Your task to perform on an android device: turn on javascript in the chrome app Image 0: 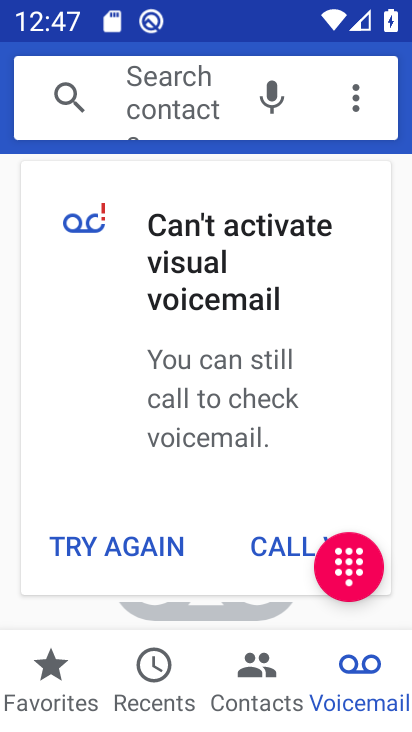
Step 0: press home button
Your task to perform on an android device: turn on javascript in the chrome app Image 1: 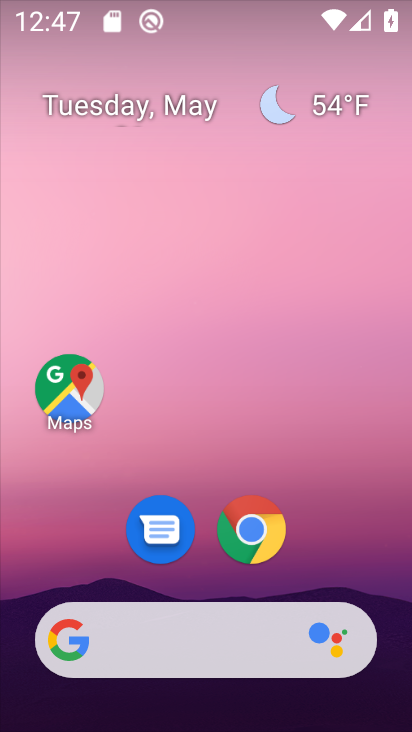
Step 1: drag from (324, 500) to (312, 227)
Your task to perform on an android device: turn on javascript in the chrome app Image 2: 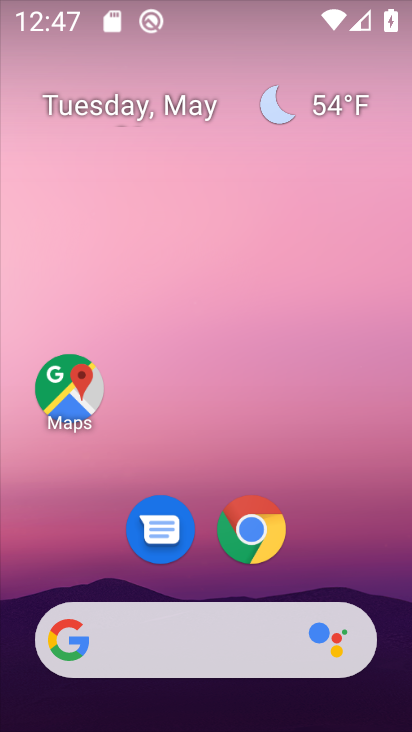
Step 2: drag from (318, 581) to (324, 226)
Your task to perform on an android device: turn on javascript in the chrome app Image 3: 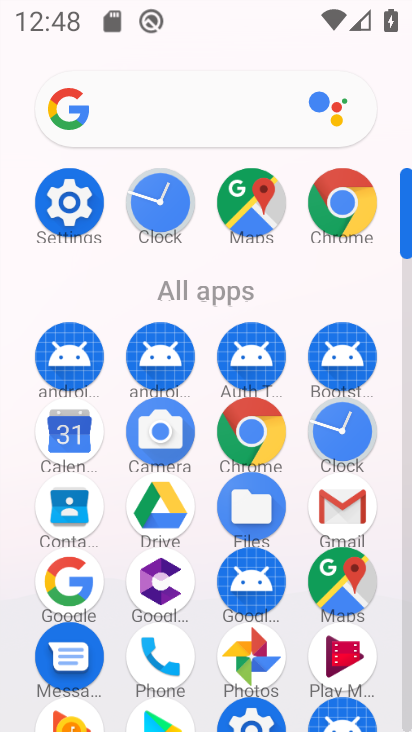
Step 3: click (255, 425)
Your task to perform on an android device: turn on javascript in the chrome app Image 4: 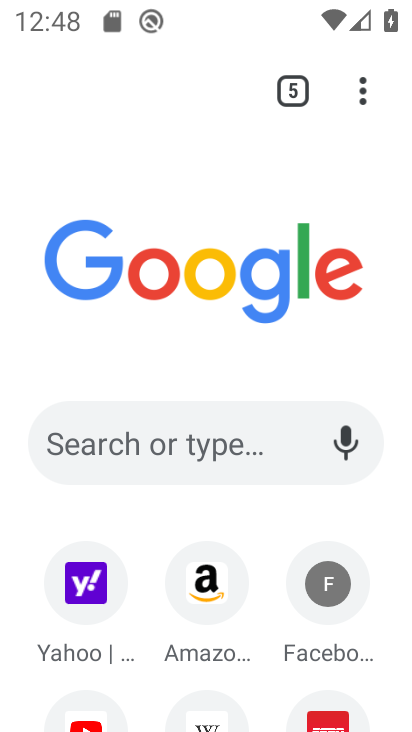
Step 4: click (356, 100)
Your task to perform on an android device: turn on javascript in the chrome app Image 5: 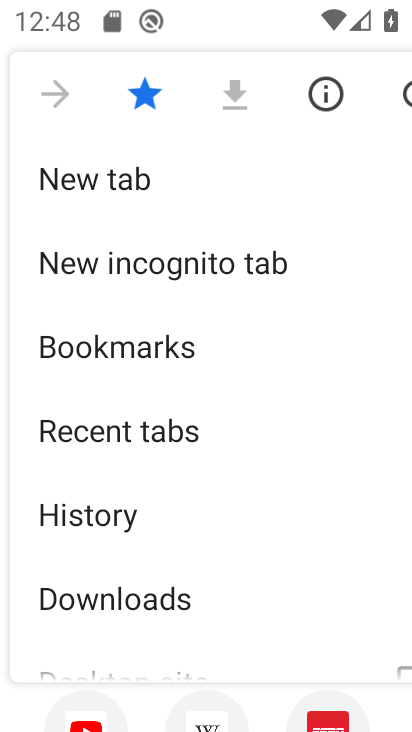
Step 5: drag from (176, 527) to (233, 314)
Your task to perform on an android device: turn on javascript in the chrome app Image 6: 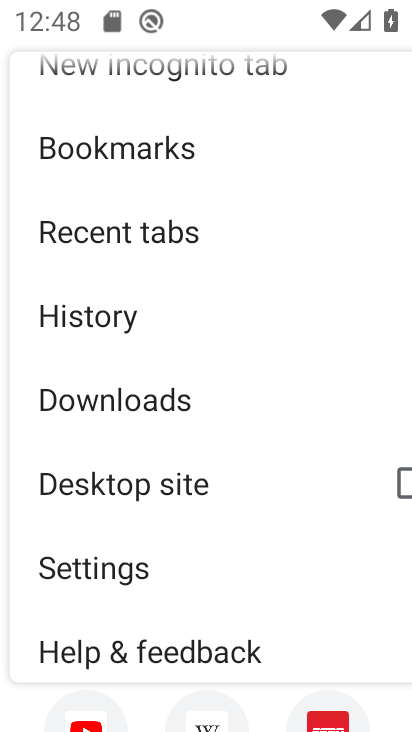
Step 6: click (138, 578)
Your task to perform on an android device: turn on javascript in the chrome app Image 7: 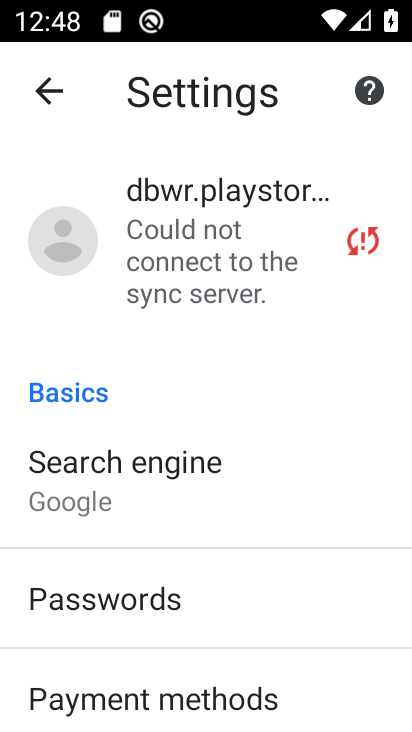
Step 7: drag from (283, 597) to (275, 190)
Your task to perform on an android device: turn on javascript in the chrome app Image 8: 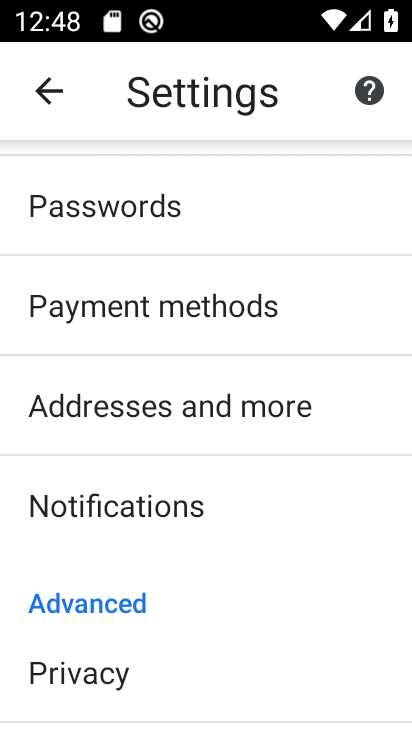
Step 8: drag from (221, 532) to (272, 234)
Your task to perform on an android device: turn on javascript in the chrome app Image 9: 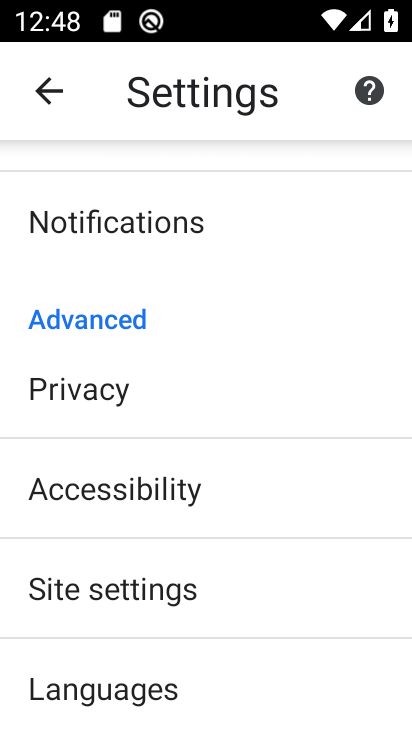
Step 9: click (156, 594)
Your task to perform on an android device: turn on javascript in the chrome app Image 10: 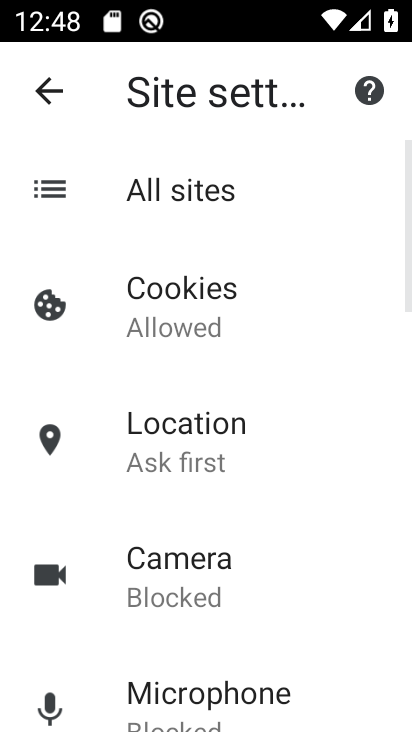
Step 10: drag from (240, 437) to (256, 161)
Your task to perform on an android device: turn on javascript in the chrome app Image 11: 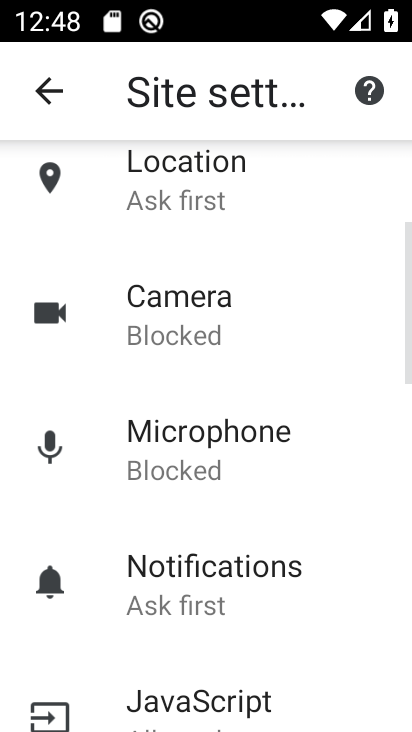
Step 11: drag from (184, 550) to (270, 255)
Your task to perform on an android device: turn on javascript in the chrome app Image 12: 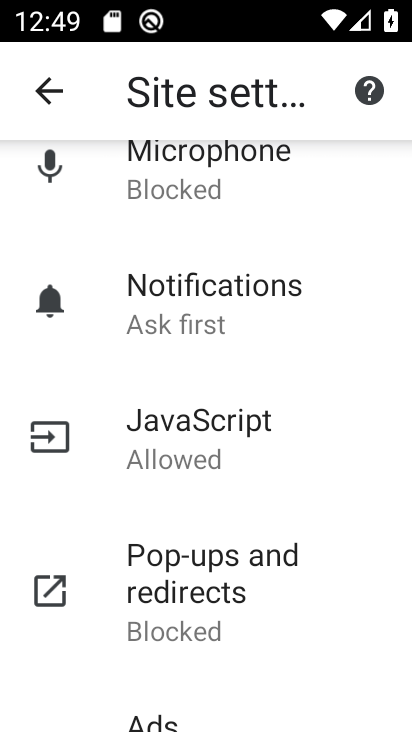
Step 12: click (217, 443)
Your task to perform on an android device: turn on javascript in the chrome app Image 13: 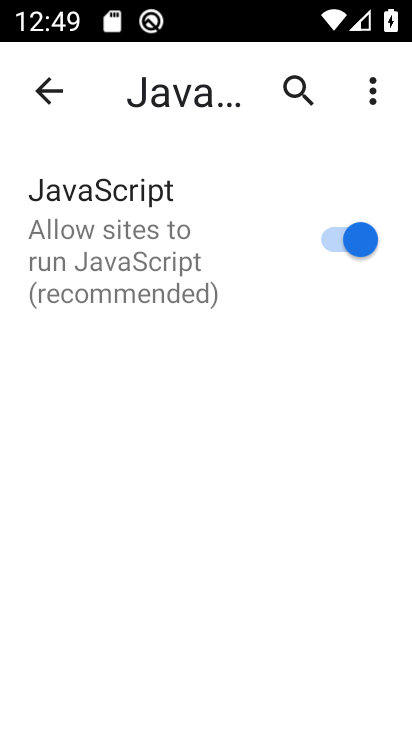
Step 13: task complete